Your task to perform on an android device: check storage Image 0: 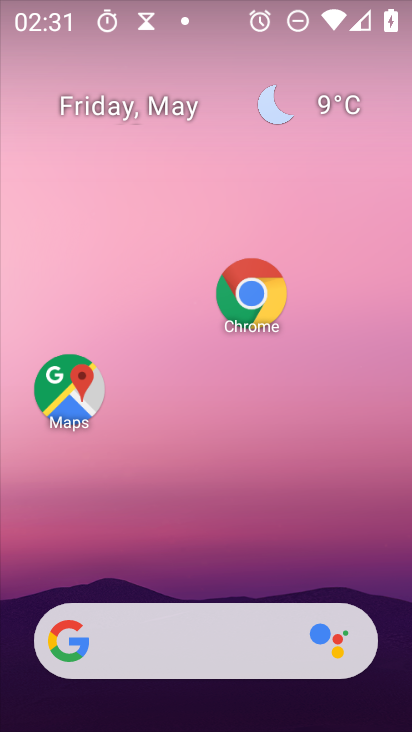
Step 0: press home button
Your task to perform on an android device: check storage Image 1: 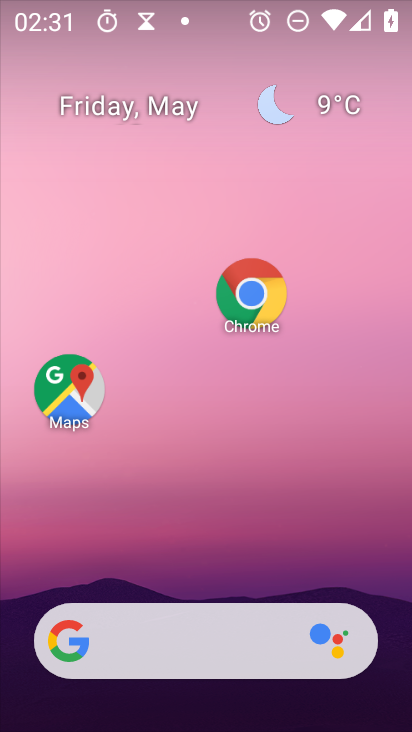
Step 1: drag from (199, 656) to (326, 167)
Your task to perform on an android device: check storage Image 2: 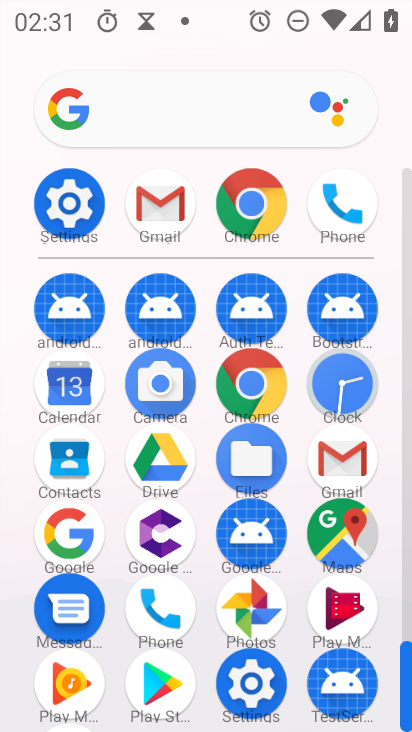
Step 2: click (73, 216)
Your task to perform on an android device: check storage Image 3: 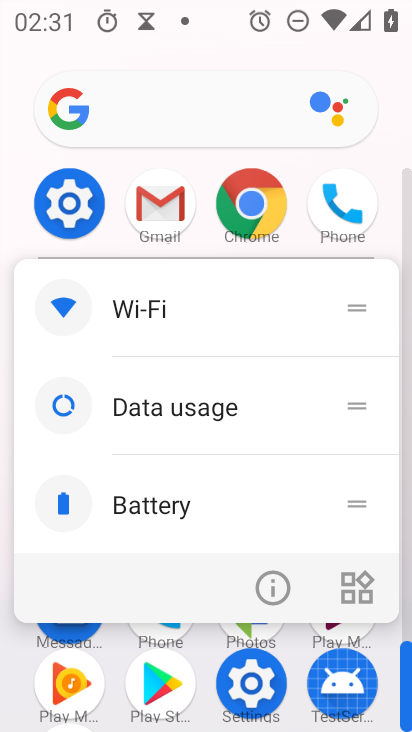
Step 3: press home button
Your task to perform on an android device: check storage Image 4: 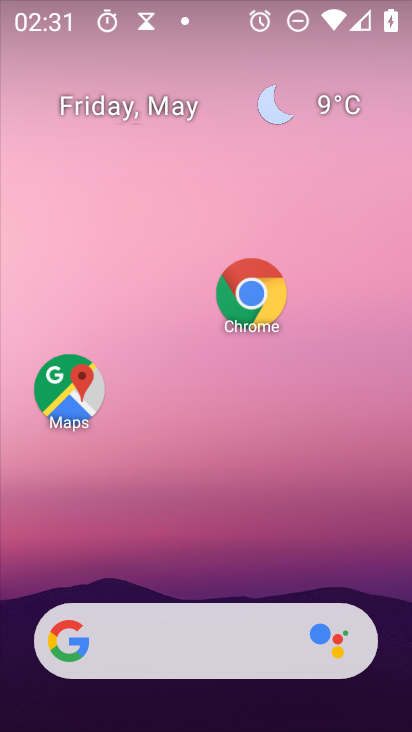
Step 4: drag from (211, 628) to (316, 174)
Your task to perform on an android device: check storage Image 5: 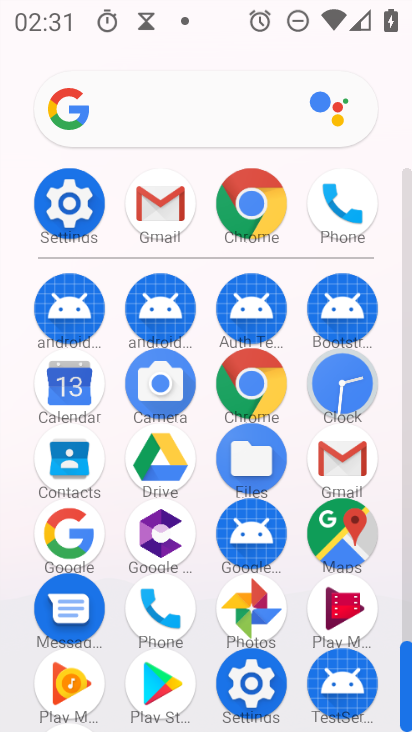
Step 5: click (71, 204)
Your task to perform on an android device: check storage Image 6: 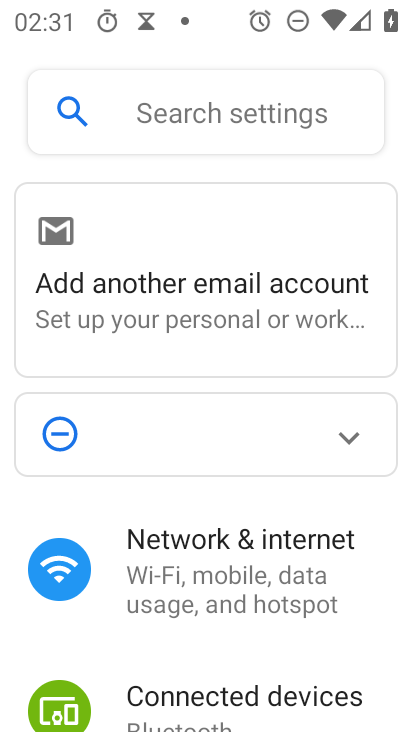
Step 6: drag from (227, 635) to (319, 239)
Your task to perform on an android device: check storage Image 7: 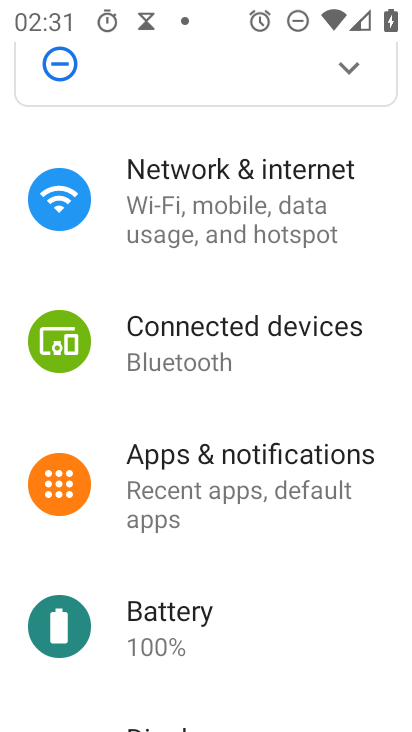
Step 7: drag from (201, 673) to (279, 303)
Your task to perform on an android device: check storage Image 8: 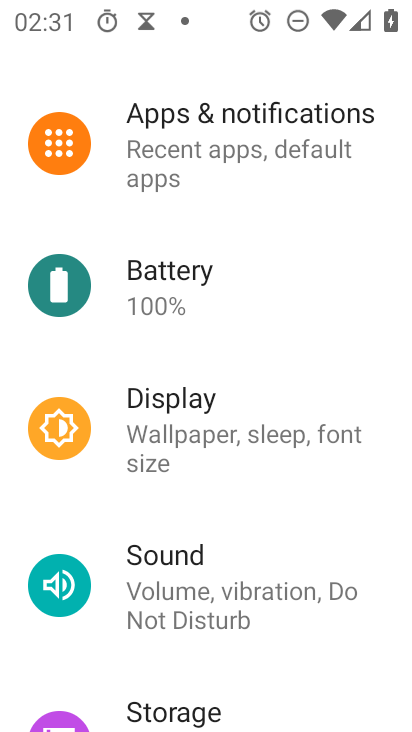
Step 8: drag from (250, 646) to (308, 482)
Your task to perform on an android device: check storage Image 9: 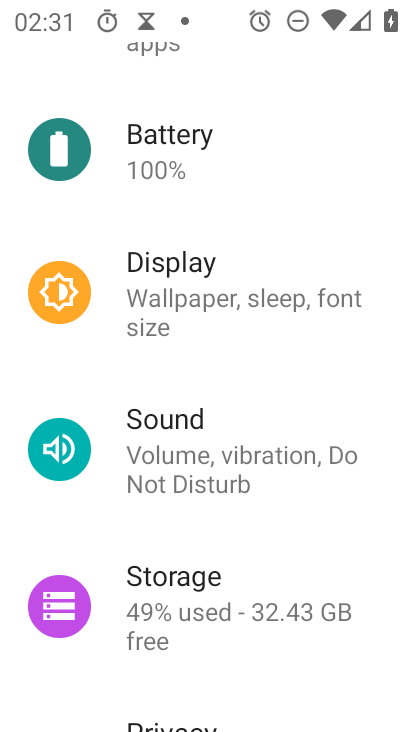
Step 9: click (234, 605)
Your task to perform on an android device: check storage Image 10: 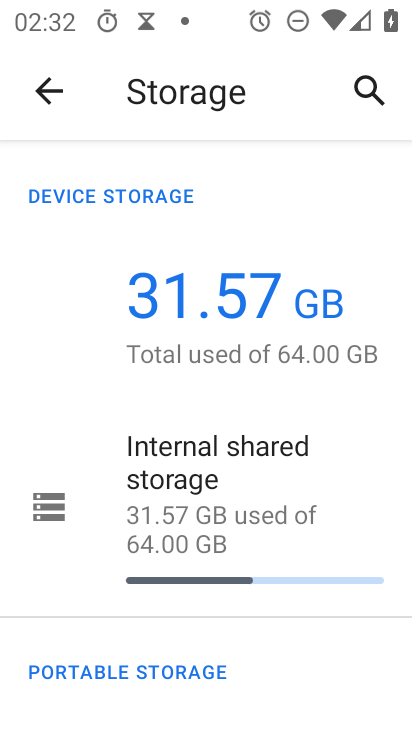
Step 10: task complete